Your task to perform on an android device: turn off wifi Image 0: 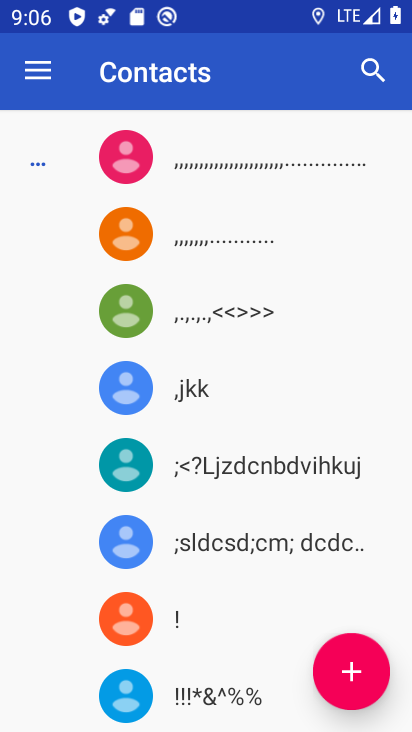
Step 0: press home button
Your task to perform on an android device: turn off wifi Image 1: 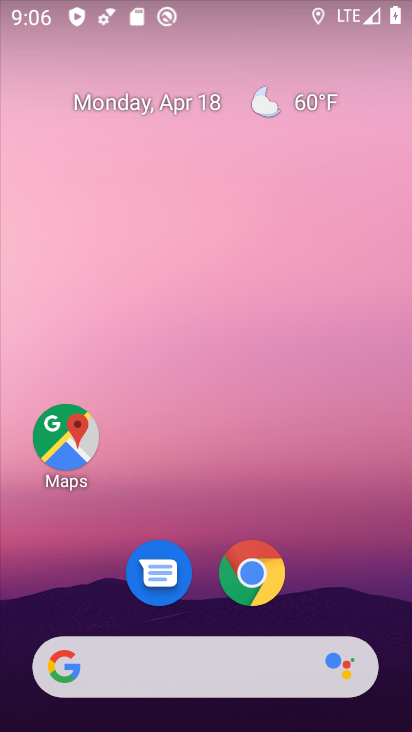
Step 1: drag from (349, 573) to (354, 39)
Your task to perform on an android device: turn off wifi Image 2: 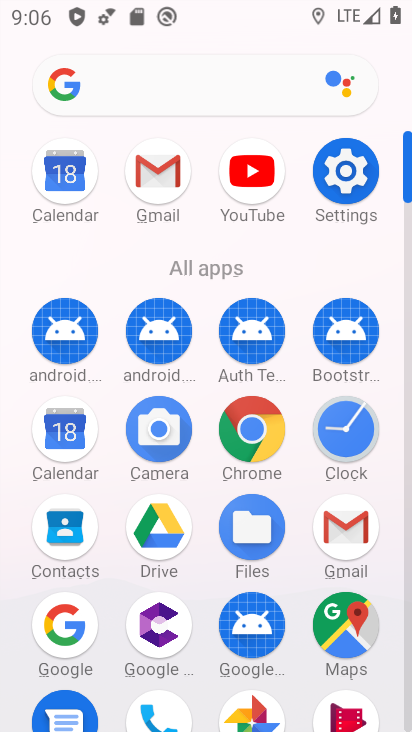
Step 2: click (348, 175)
Your task to perform on an android device: turn off wifi Image 3: 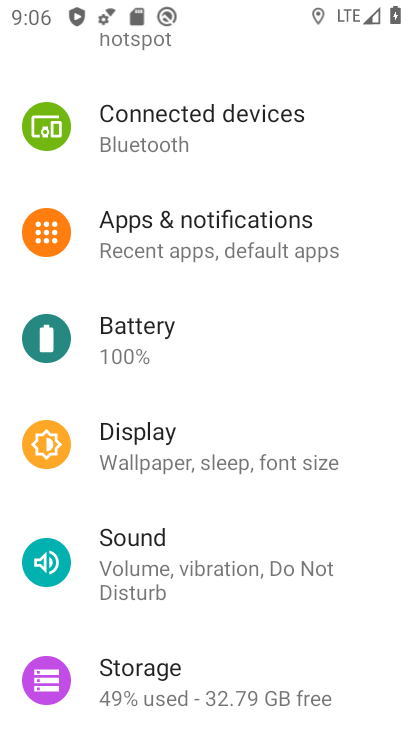
Step 3: drag from (188, 210) to (157, 648)
Your task to perform on an android device: turn off wifi Image 4: 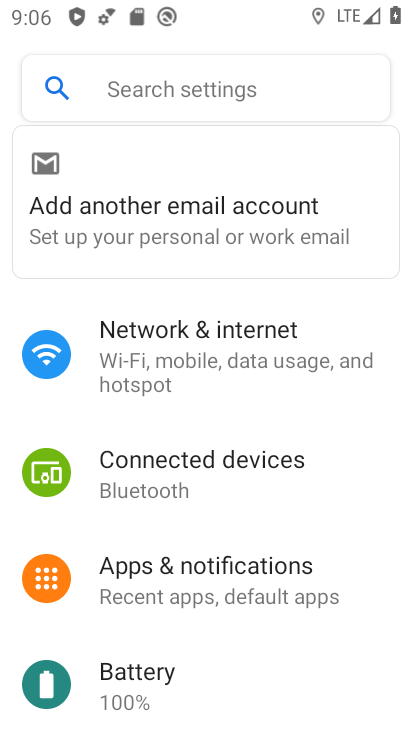
Step 4: click (139, 324)
Your task to perform on an android device: turn off wifi Image 5: 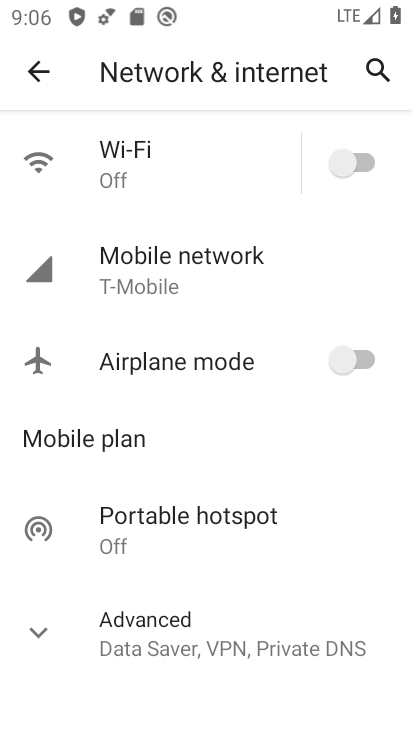
Step 5: task complete